Your task to perform on an android device: refresh tabs in the chrome app Image 0: 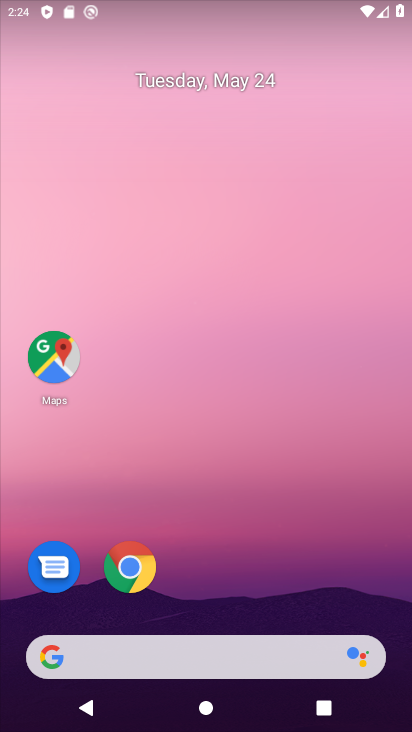
Step 0: click (139, 560)
Your task to perform on an android device: refresh tabs in the chrome app Image 1: 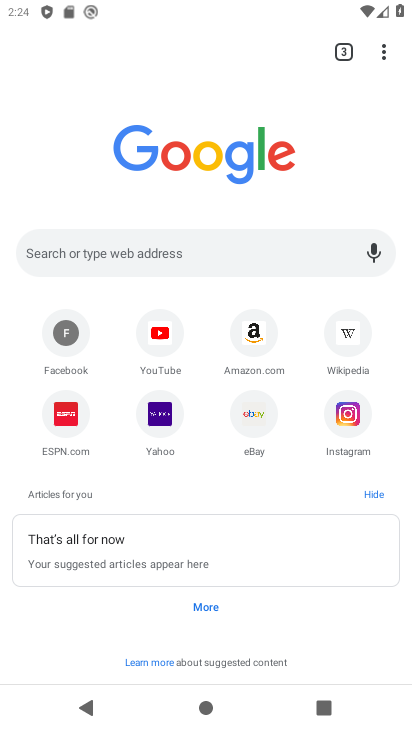
Step 1: click (386, 48)
Your task to perform on an android device: refresh tabs in the chrome app Image 2: 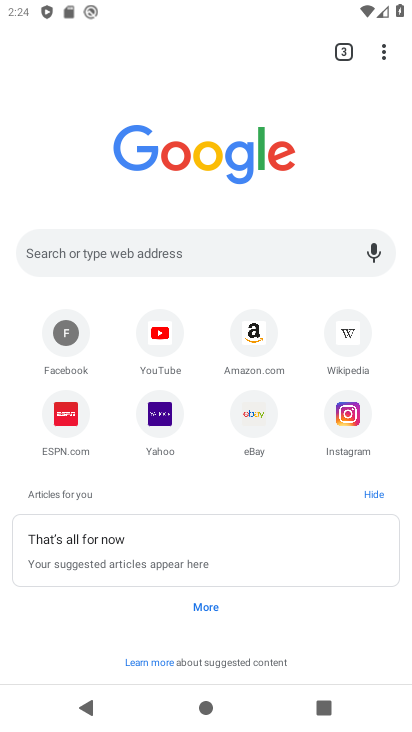
Step 2: task complete